Your task to perform on an android device: Open CNN.com Image 0: 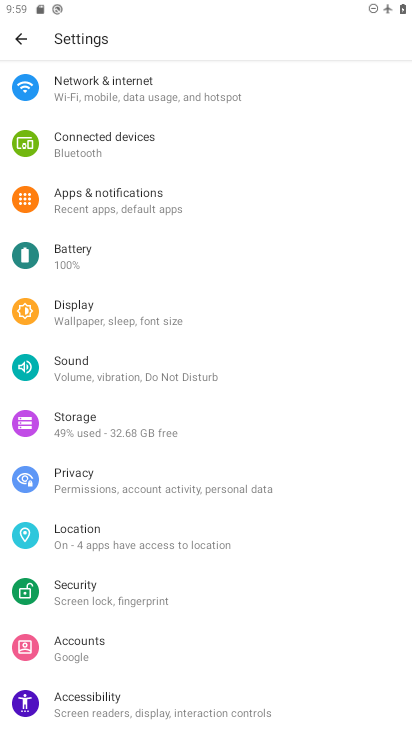
Step 0: press home button
Your task to perform on an android device: Open CNN.com Image 1: 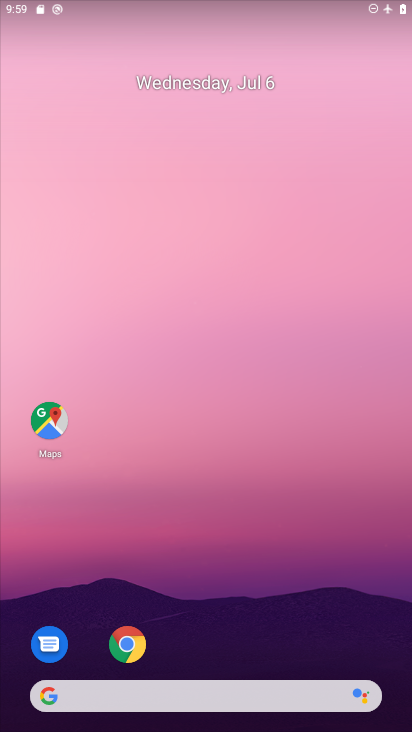
Step 1: click (223, 636)
Your task to perform on an android device: Open CNN.com Image 2: 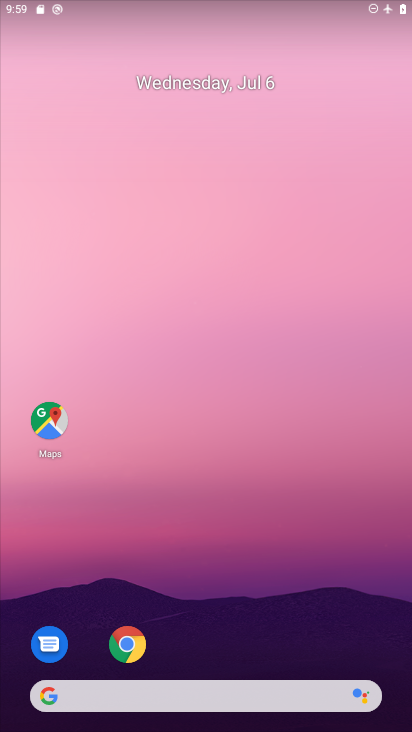
Step 2: click (123, 632)
Your task to perform on an android device: Open CNN.com Image 3: 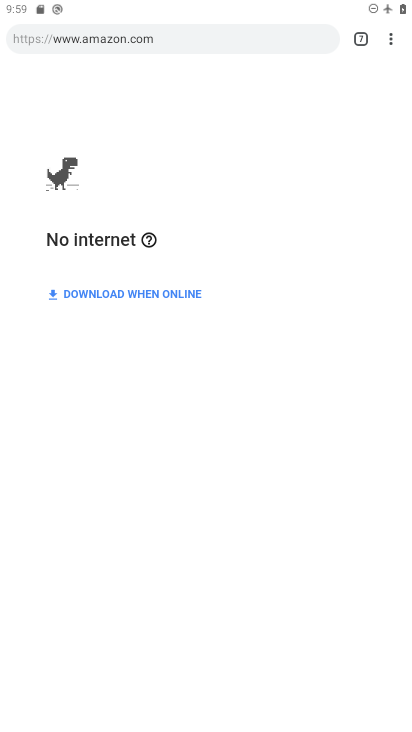
Step 3: click (367, 40)
Your task to perform on an android device: Open CNN.com Image 4: 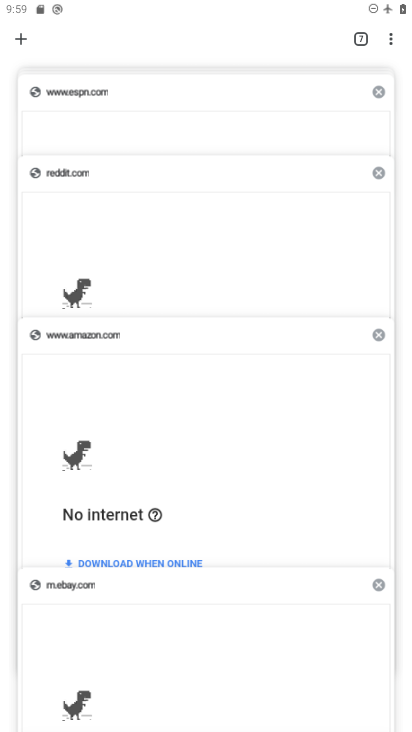
Step 4: click (13, 34)
Your task to perform on an android device: Open CNN.com Image 5: 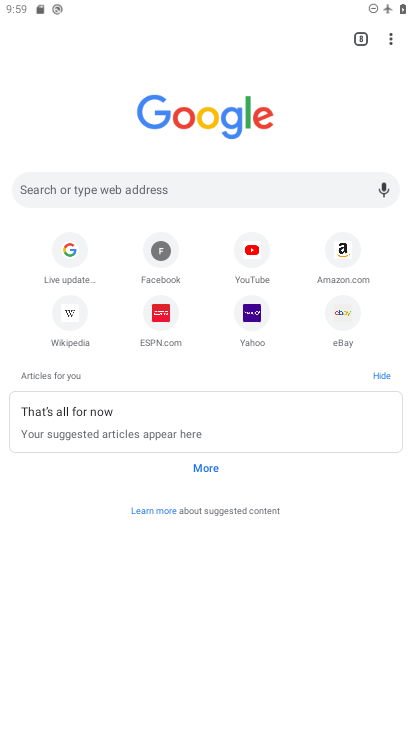
Step 5: click (168, 186)
Your task to perform on an android device: Open CNN.com Image 6: 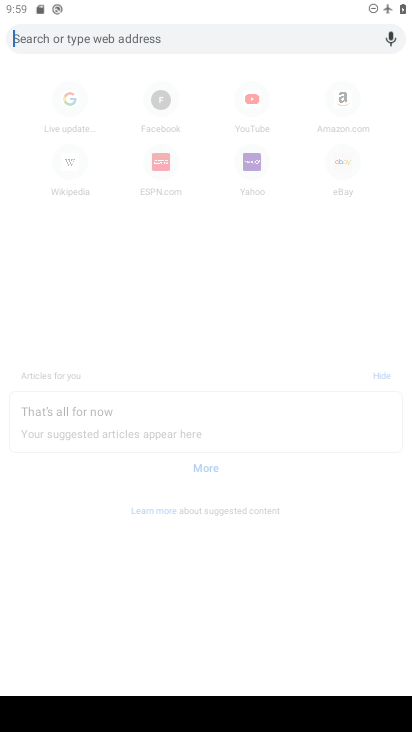
Step 6: type "CNN.com"
Your task to perform on an android device: Open CNN.com Image 7: 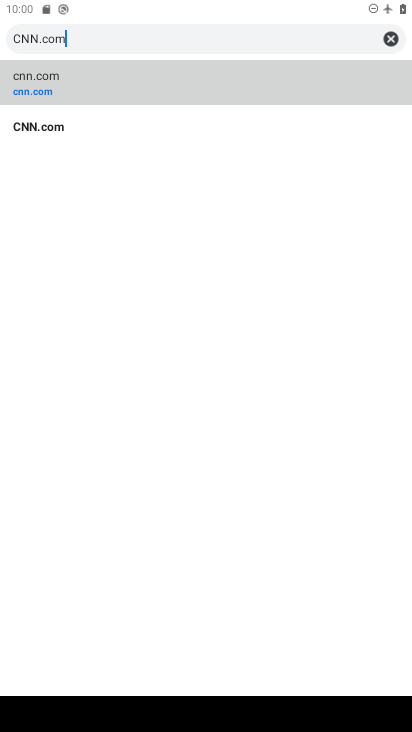
Step 7: click (190, 93)
Your task to perform on an android device: Open CNN.com Image 8: 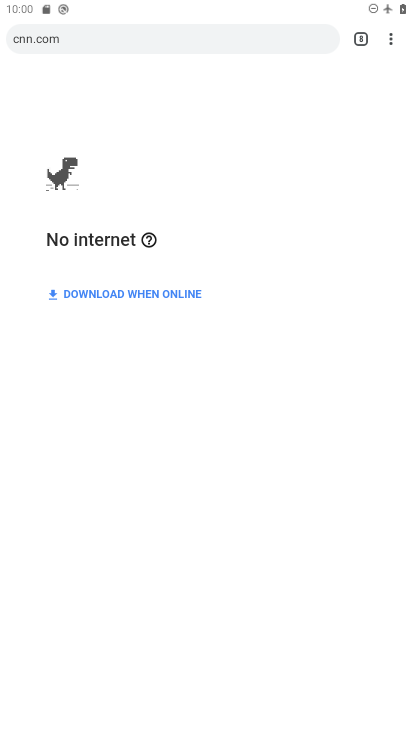
Step 8: task complete